Your task to perform on an android device: delete the emails in spam in the gmail app Image 0: 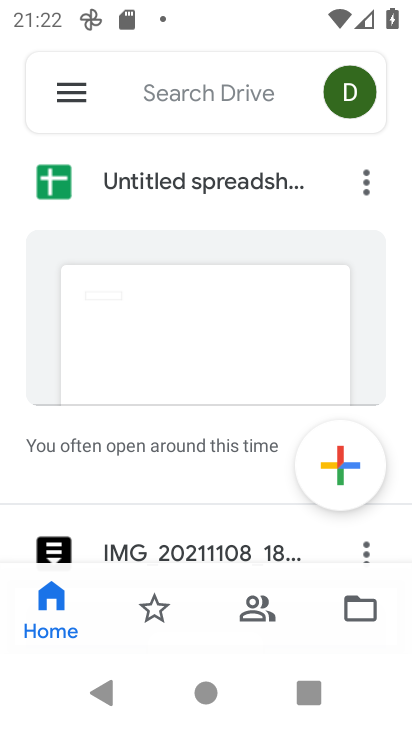
Step 0: task complete